Your task to perform on an android device: Show me popular videos on Youtube Image 0: 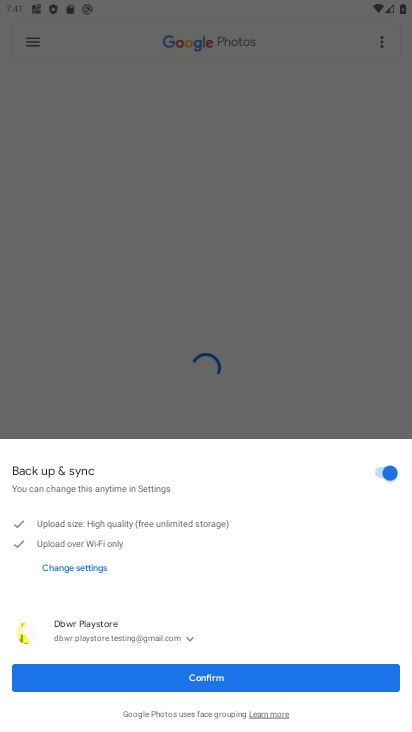
Step 0: press home button
Your task to perform on an android device: Show me popular videos on Youtube Image 1: 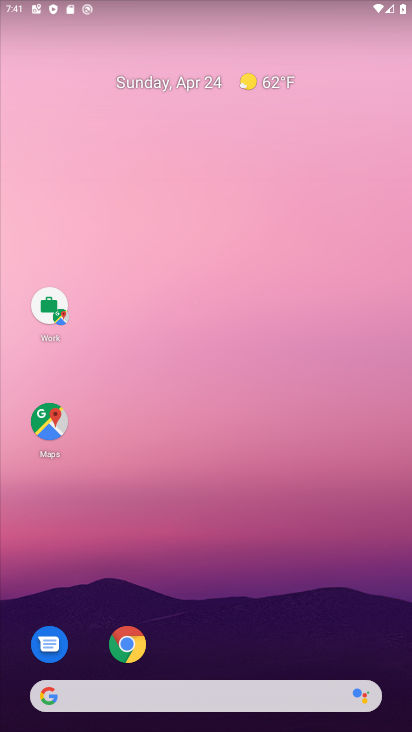
Step 1: drag from (223, 626) to (173, 164)
Your task to perform on an android device: Show me popular videos on Youtube Image 2: 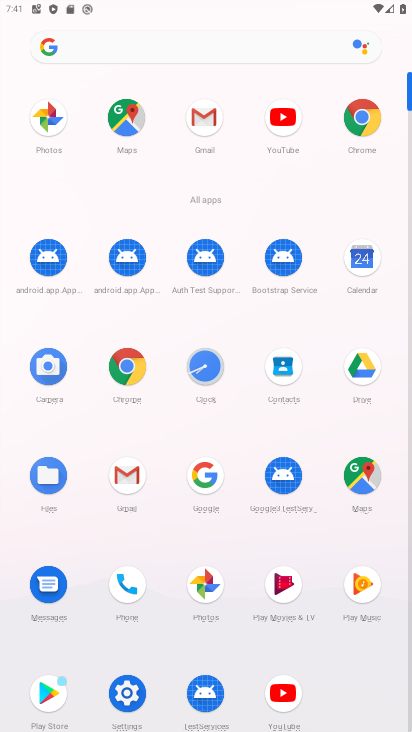
Step 2: click (283, 123)
Your task to perform on an android device: Show me popular videos on Youtube Image 3: 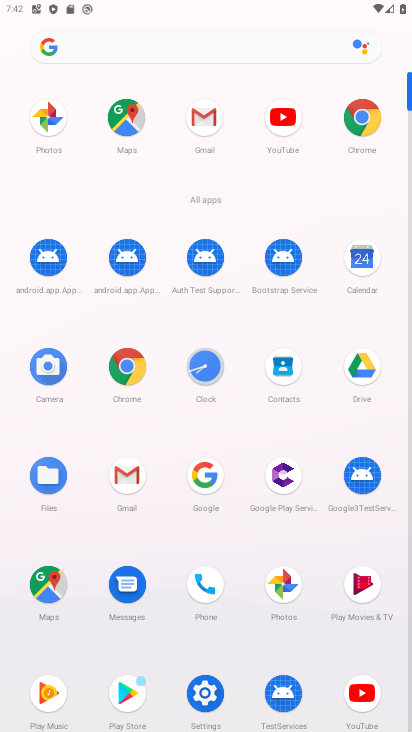
Step 3: click (362, 690)
Your task to perform on an android device: Show me popular videos on Youtube Image 4: 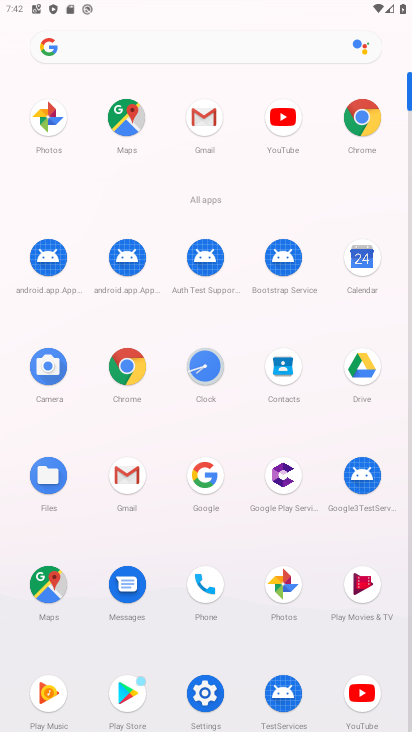
Step 4: click (368, 696)
Your task to perform on an android device: Show me popular videos on Youtube Image 5: 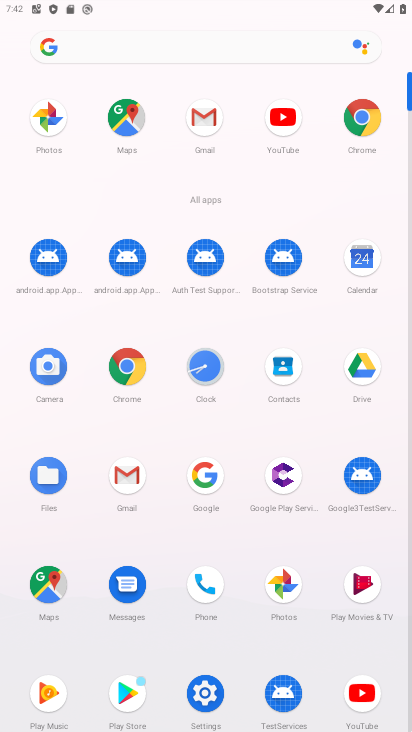
Step 5: click (362, 692)
Your task to perform on an android device: Show me popular videos on Youtube Image 6: 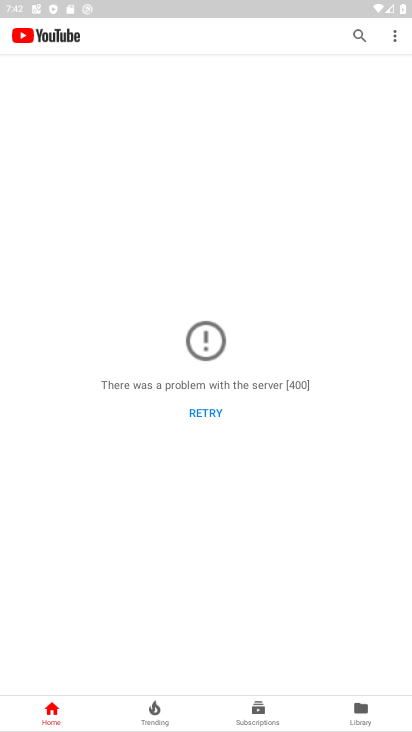
Step 6: click (224, 346)
Your task to perform on an android device: Show me popular videos on Youtube Image 7: 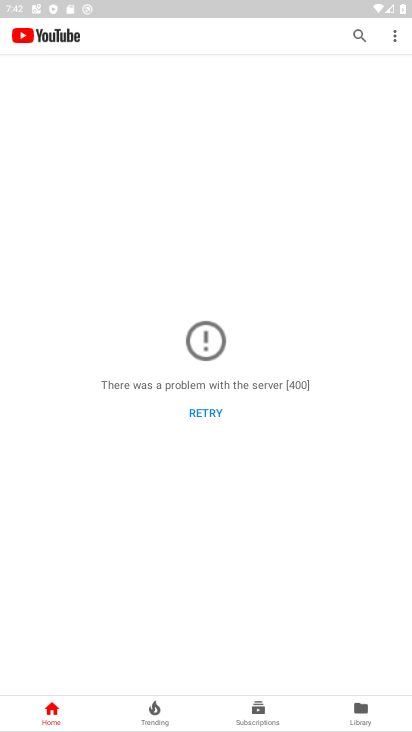
Step 7: click (200, 337)
Your task to perform on an android device: Show me popular videos on Youtube Image 8: 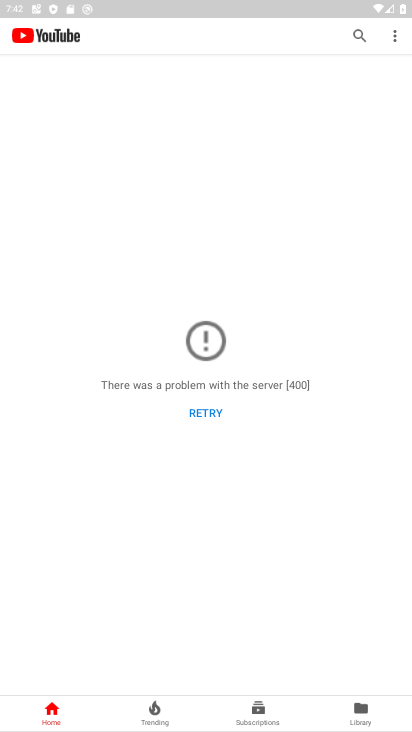
Step 8: click (201, 413)
Your task to perform on an android device: Show me popular videos on Youtube Image 9: 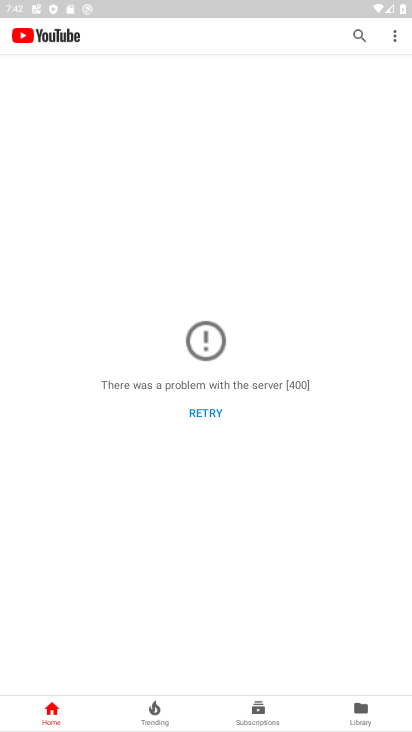
Step 9: task complete